Your task to perform on an android device: change the clock display to show seconds Image 0: 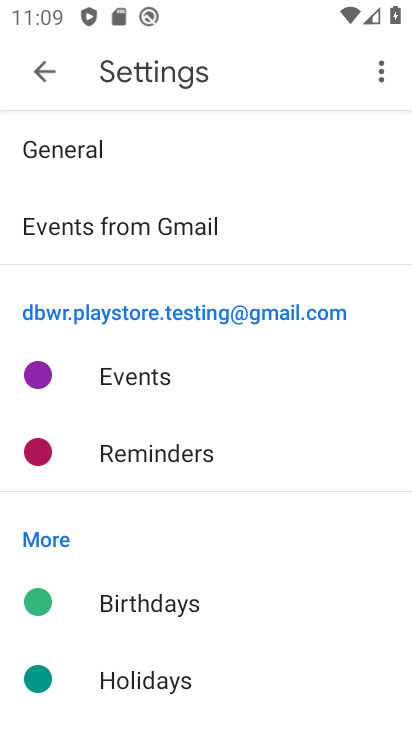
Step 0: press home button
Your task to perform on an android device: change the clock display to show seconds Image 1: 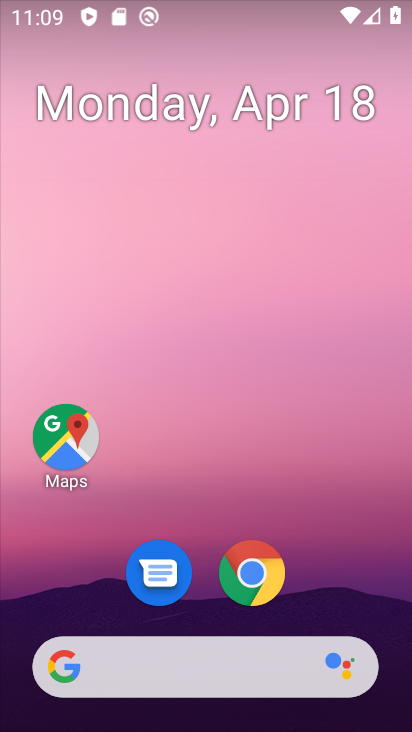
Step 1: drag from (210, 498) to (247, 150)
Your task to perform on an android device: change the clock display to show seconds Image 2: 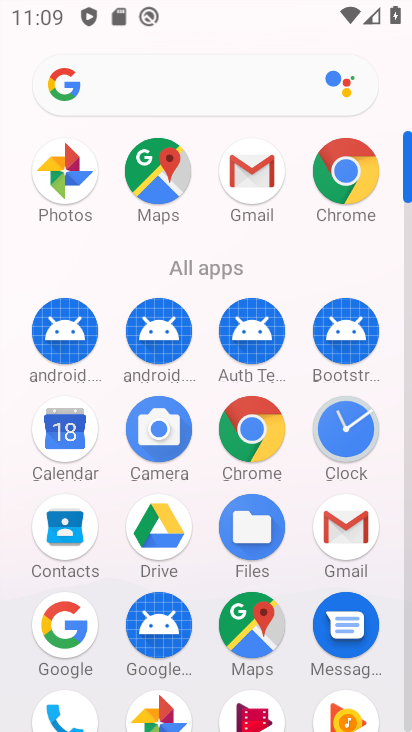
Step 2: click (342, 435)
Your task to perform on an android device: change the clock display to show seconds Image 3: 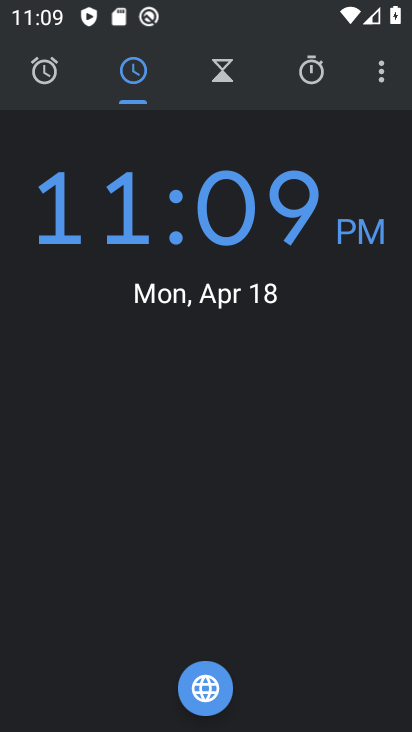
Step 3: click (379, 79)
Your task to perform on an android device: change the clock display to show seconds Image 4: 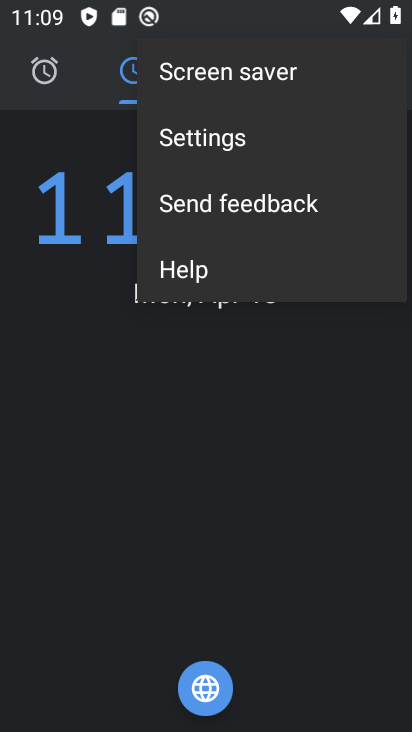
Step 4: click (205, 139)
Your task to perform on an android device: change the clock display to show seconds Image 5: 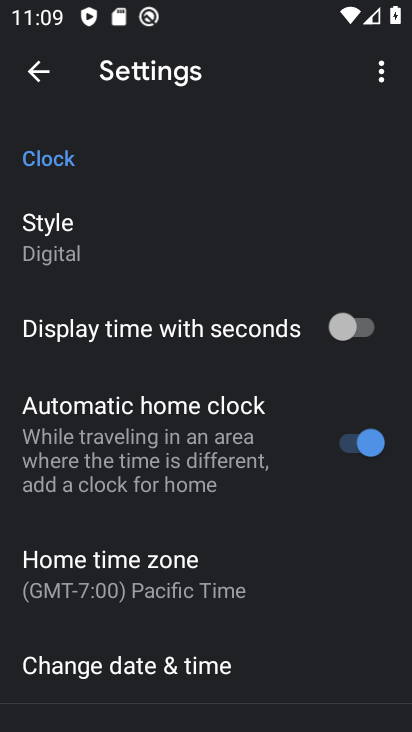
Step 5: click (352, 328)
Your task to perform on an android device: change the clock display to show seconds Image 6: 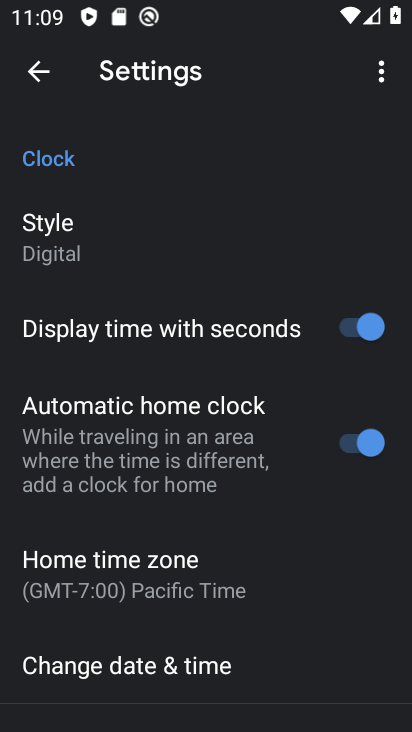
Step 6: task complete